Your task to perform on an android device: see sites visited before in the chrome app Image 0: 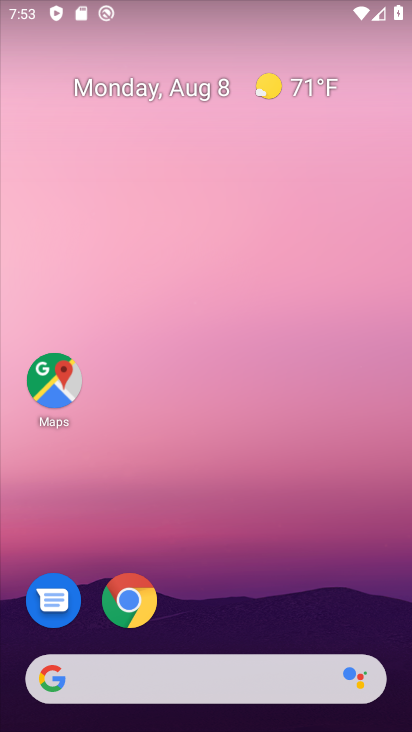
Step 0: drag from (224, 634) to (179, 38)
Your task to perform on an android device: see sites visited before in the chrome app Image 1: 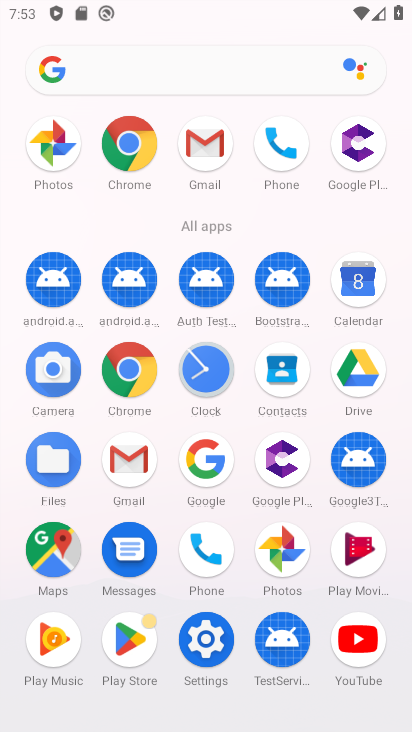
Step 1: click (129, 383)
Your task to perform on an android device: see sites visited before in the chrome app Image 2: 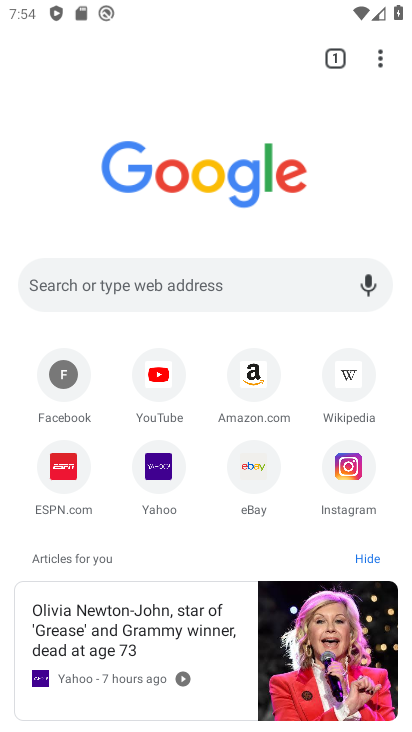
Step 2: click (329, 50)
Your task to perform on an android device: see sites visited before in the chrome app Image 3: 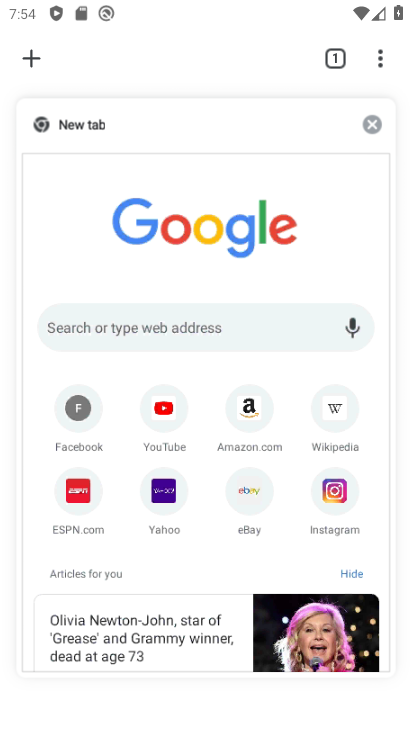
Step 3: task complete